Your task to perform on an android device: turn on notifications settings in the gmail app Image 0: 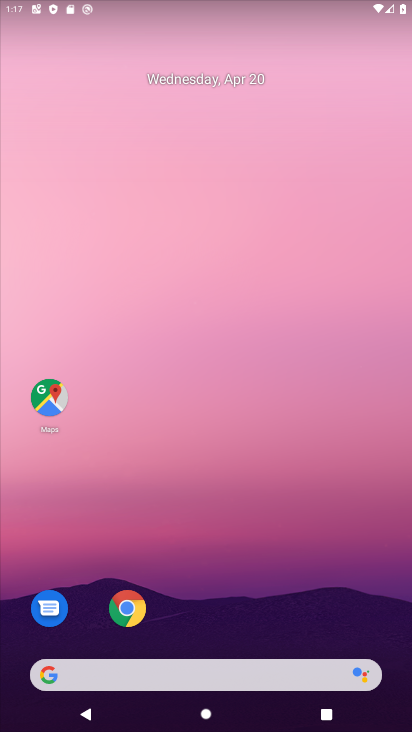
Step 0: drag from (210, 726) to (212, 38)
Your task to perform on an android device: turn on notifications settings in the gmail app Image 1: 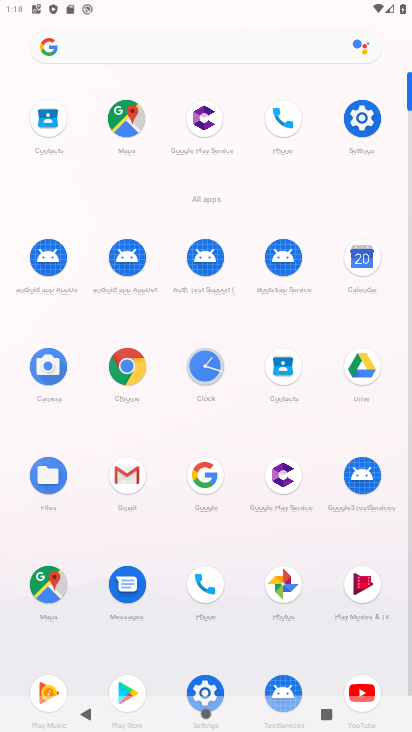
Step 1: click (128, 476)
Your task to perform on an android device: turn on notifications settings in the gmail app Image 2: 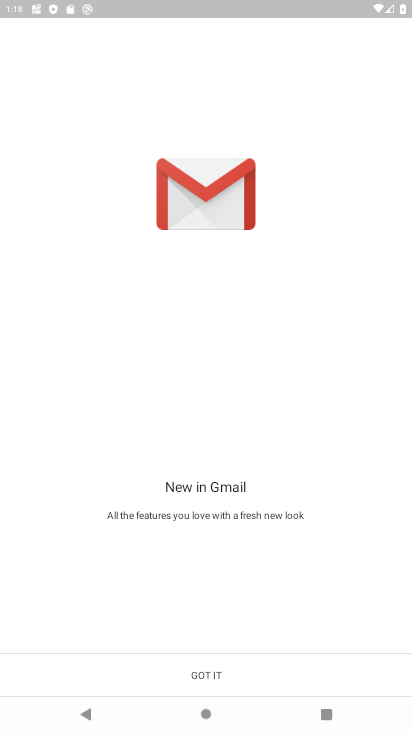
Step 2: click (205, 668)
Your task to perform on an android device: turn on notifications settings in the gmail app Image 3: 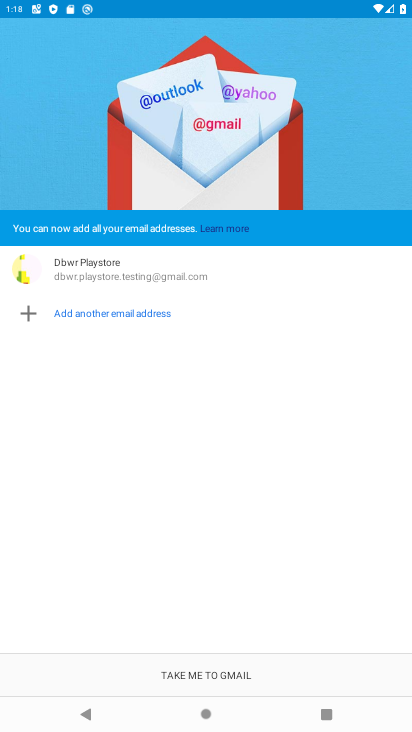
Step 3: click (205, 675)
Your task to perform on an android device: turn on notifications settings in the gmail app Image 4: 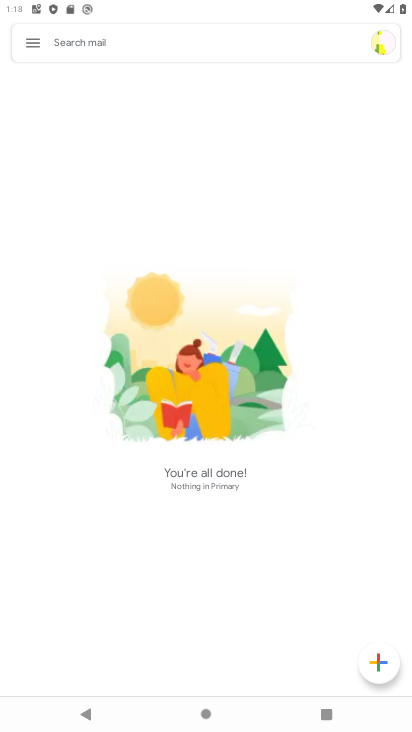
Step 4: click (33, 44)
Your task to perform on an android device: turn on notifications settings in the gmail app Image 5: 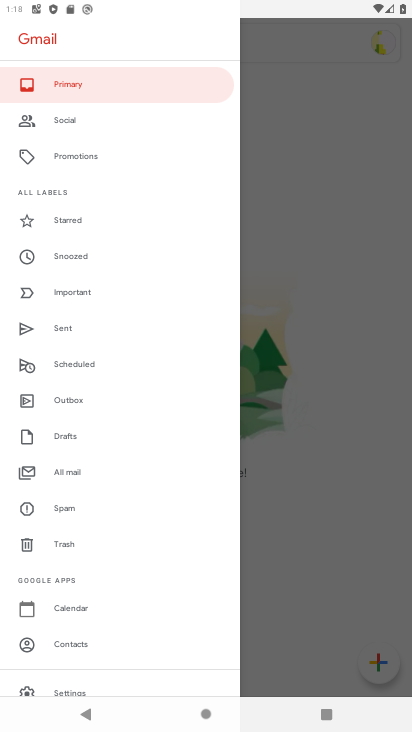
Step 5: drag from (91, 666) to (91, 257)
Your task to perform on an android device: turn on notifications settings in the gmail app Image 6: 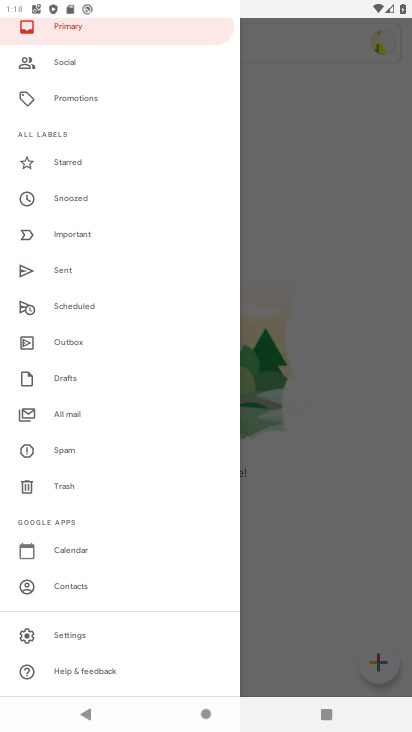
Step 6: click (65, 632)
Your task to perform on an android device: turn on notifications settings in the gmail app Image 7: 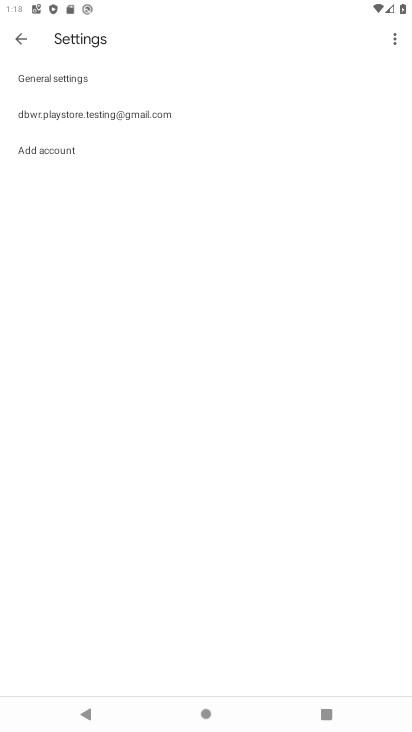
Step 7: click (133, 116)
Your task to perform on an android device: turn on notifications settings in the gmail app Image 8: 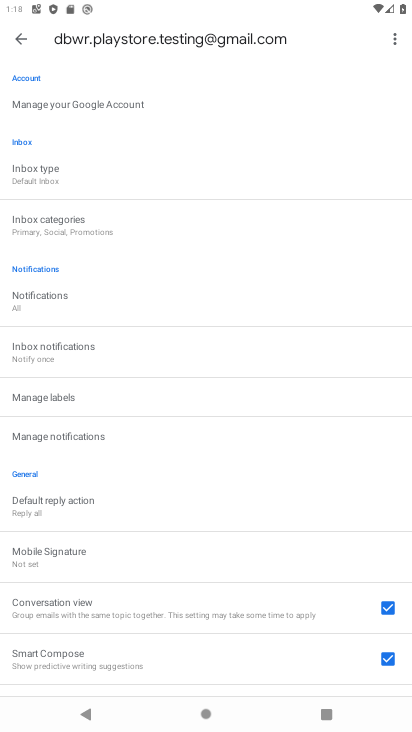
Step 8: task complete